Your task to perform on an android device: open device folders in google photos Image 0: 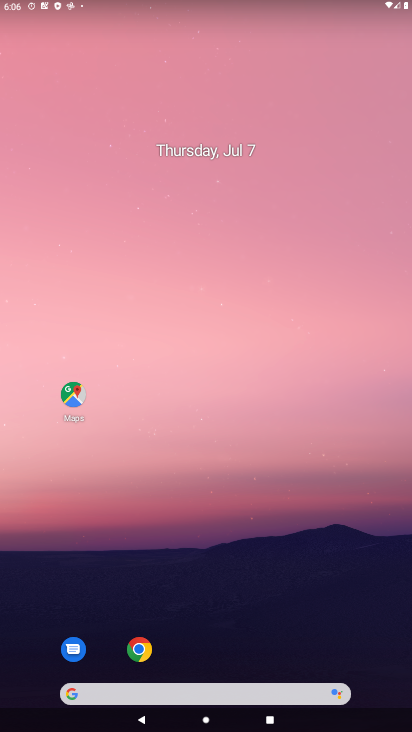
Step 0: drag from (358, 651) to (203, 6)
Your task to perform on an android device: open device folders in google photos Image 1: 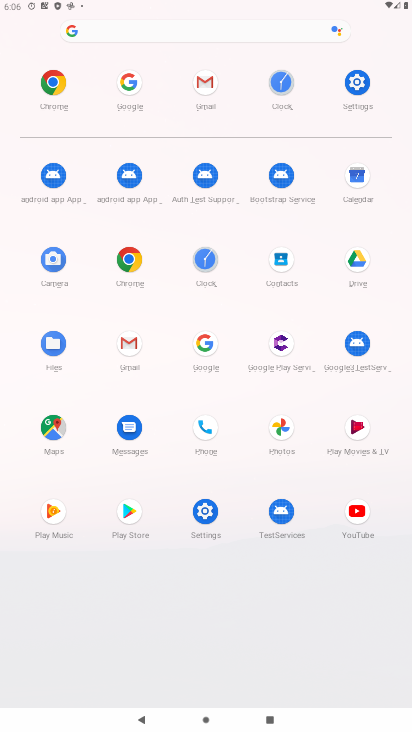
Step 1: click (289, 415)
Your task to perform on an android device: open device folders in google photos Image 2: 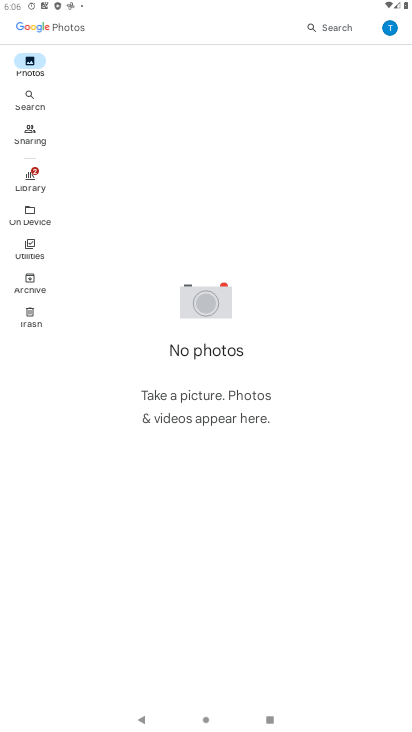
Step 2: task complete